Your task to perform on an android device: choose inbox layout in the gmail app Image 0: 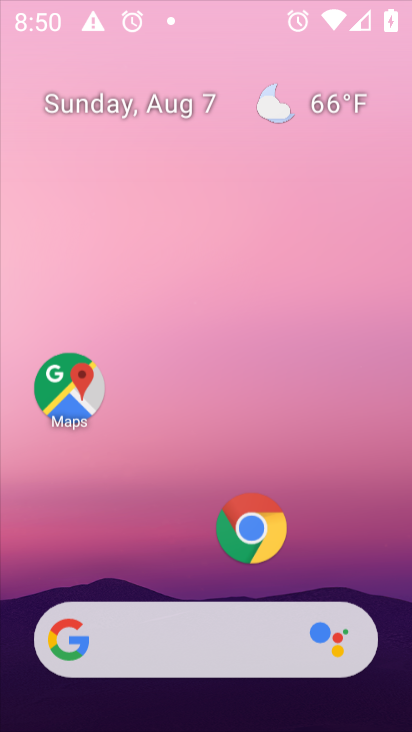
Step 0: click (218, 1)
Your task to perform on an android device: choose inbox layout in the gmail app Image 1: 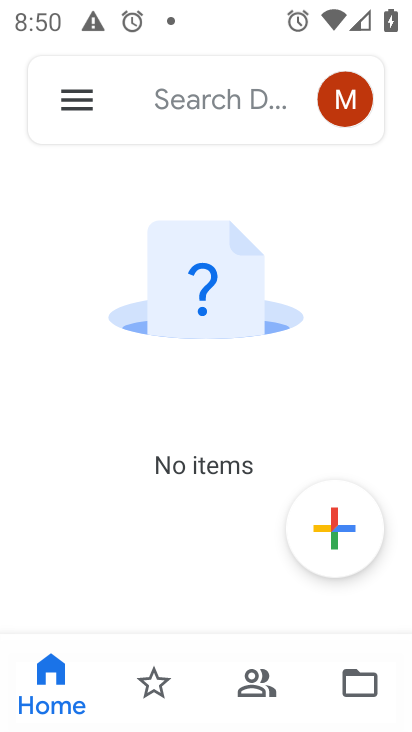
Step 1: press home button
Your task to perform on an android device: choose inbox layout in the gmail app Image 2: 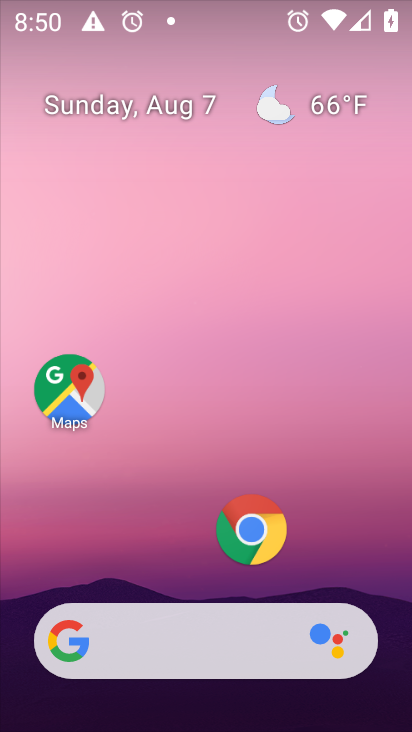
Step 2: drag from (154, 576) to (300, 50)
Your task to perform on an android device: choose inbox layout in the gmail app Image 3: 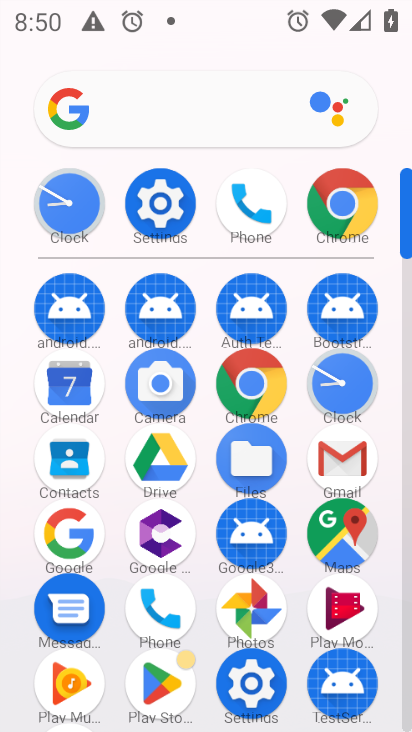
Step 3: click (347, 471)
Your task to perform on an android device: choose inbox layout in the gmail app Image 4: 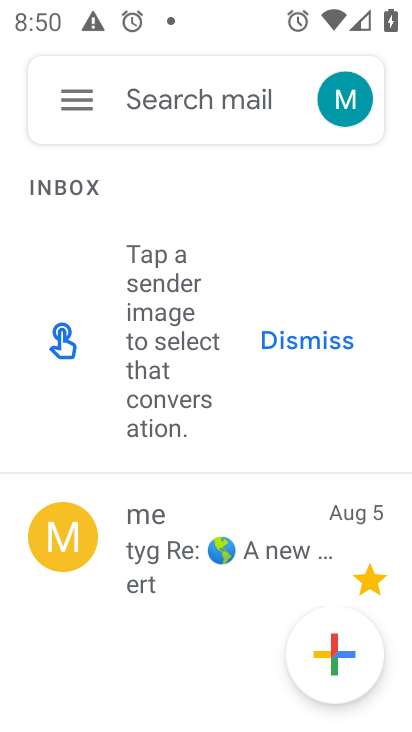
Step 4: click (63, 98)
Your task to perform on an android device: choose inbox layout in the gmail app Image 5: 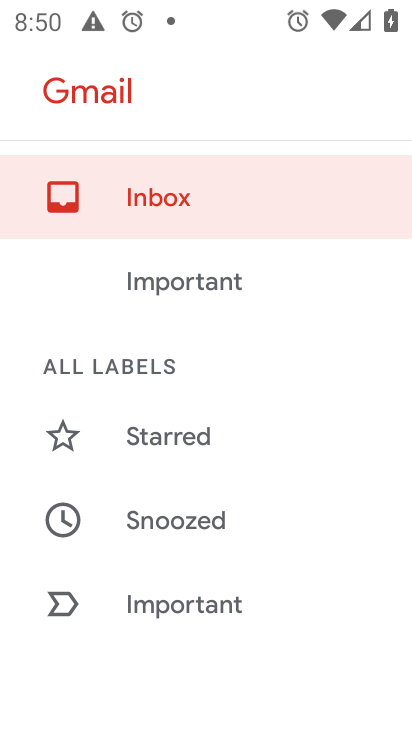
Step 5: drag from (95, 539) to (224, 5)
Your task to perform on an android device: choose inbox layout in the gmail app Image 6: 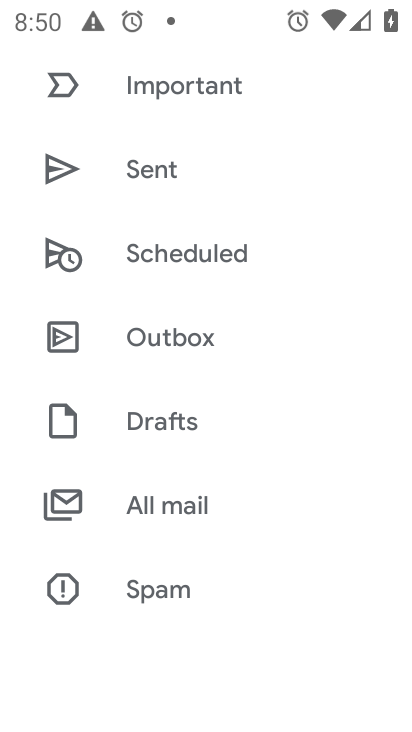
Step 6: drag from (171, 590) to (209, 138)
Your task to perform on an android device: choose inbox layout in the gmail app Image 7: 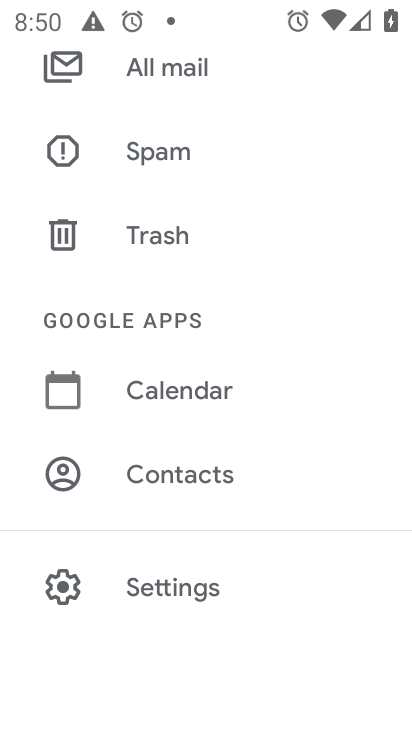
Step 7: click (180, 595)
Your task to perform on an android device: choose inbox layout in the gmail app Image 8: 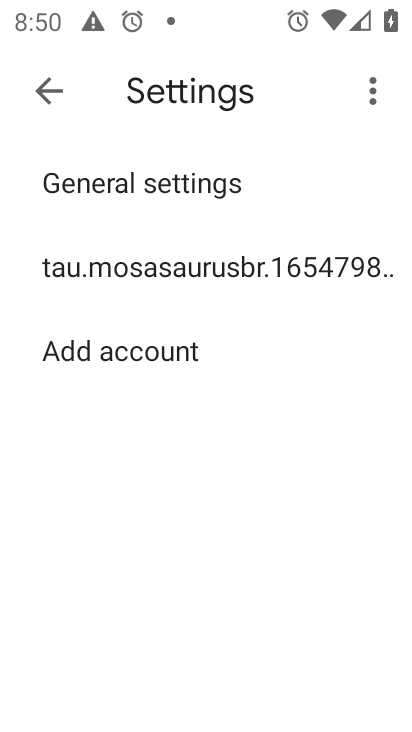
Step 8: click (202, 265)
Your task to perform on an android device: choose inbox layout in the gmail app Image 9: 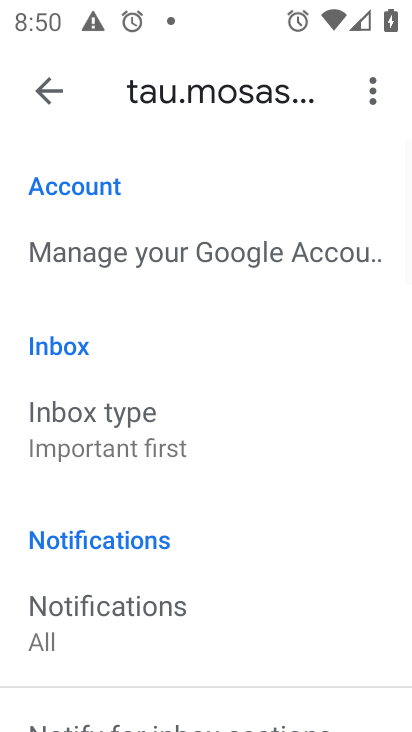
Step 9: click (119, 428)
Your task to perform on an android device: choose inbox layout in the gmail app Image 10: 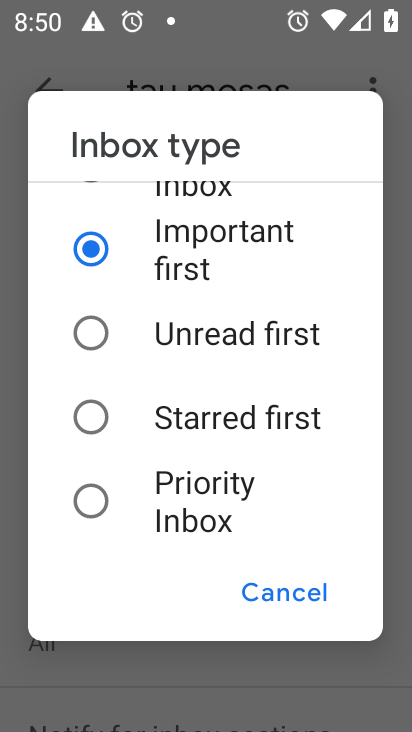
Step 10: click (112, 494)
Your task to perform on an android device: choose inbox layout in the gmail app Image 11: 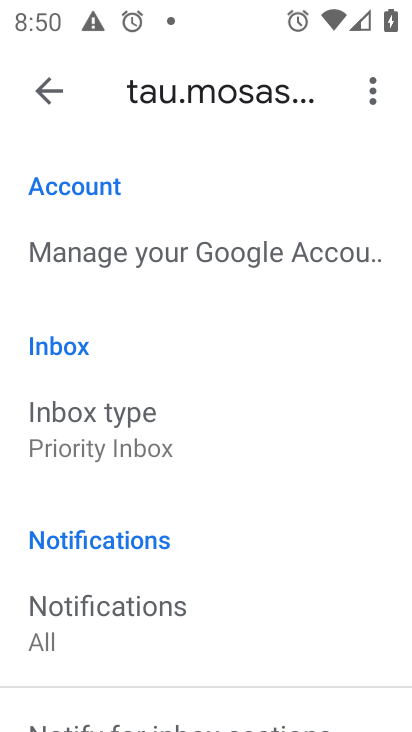
Step 11: task complete